Your task to perform on an android device: toggle javascript in the chrome app Image 0: 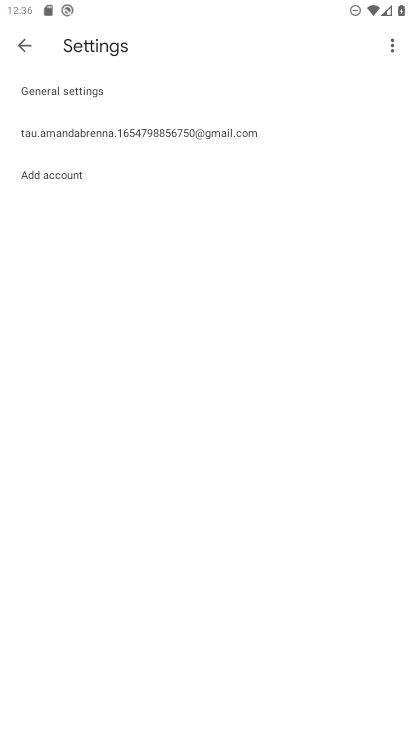
Step 0: press home button
Your task to perform on an android device: toggle javascript in the chrome app Image 1: 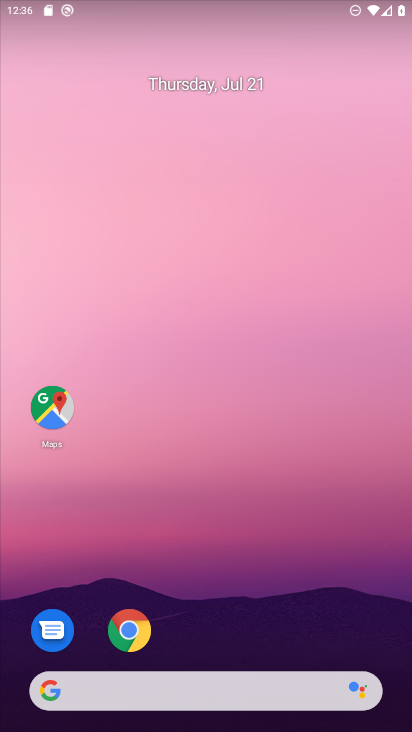
Step 1: click (120, 630)
Your task to perform on an android device: toggle javascript in the chrome app Image 2: 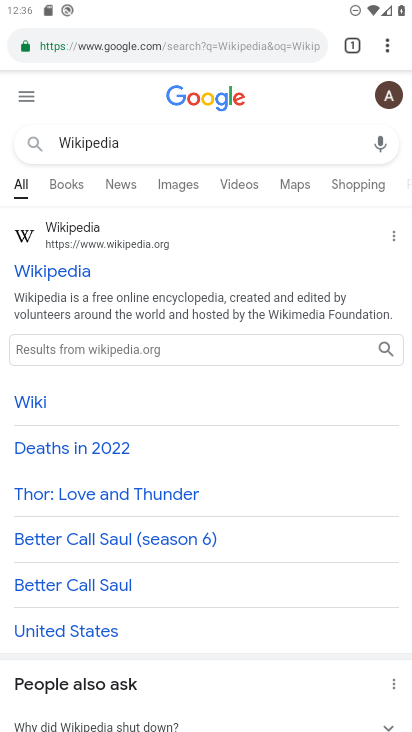
Step 2: click (382, 47)
Your task to perform on an android device: toggle javascript in the chrome app Image 3: 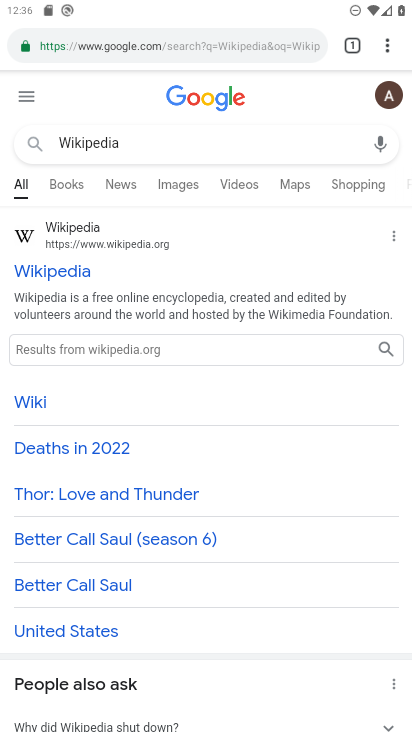
Step 3: click (386, 42)
Your task to perform on an android device: toggle javascript in the chrome app Image 4: 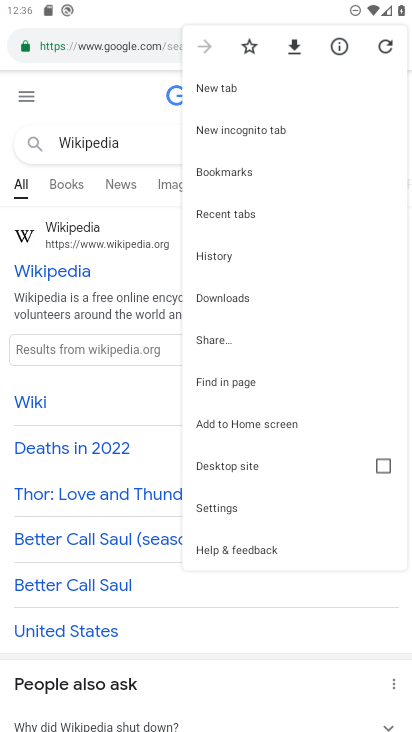
Step 4: click (202, 510)
Your task to perform on an android device: toggle javascript in the chrome app Image 5: 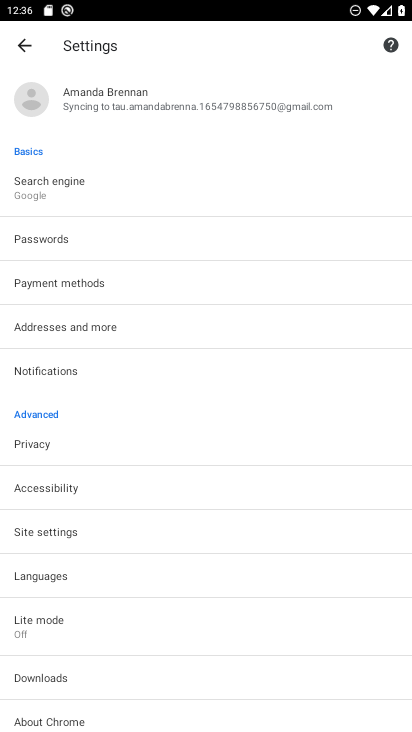
Step 5: click (53, 531)
Your task to perform on an android device: toggle javascript in the chrome app Image 6: 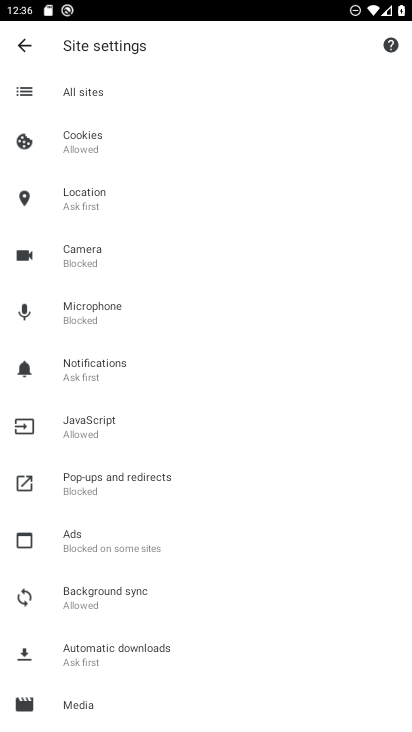
Step 6: click (98, 427)
Your task to perform on an android device: toggle javascript in the chrome app Image 7: 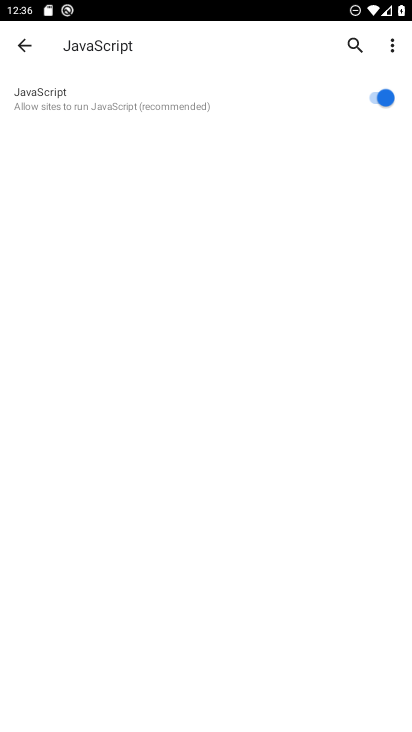
Step 7: click (374, 102)
Your task to perform on an android device: toggle javascript in the chrome app Image 8: 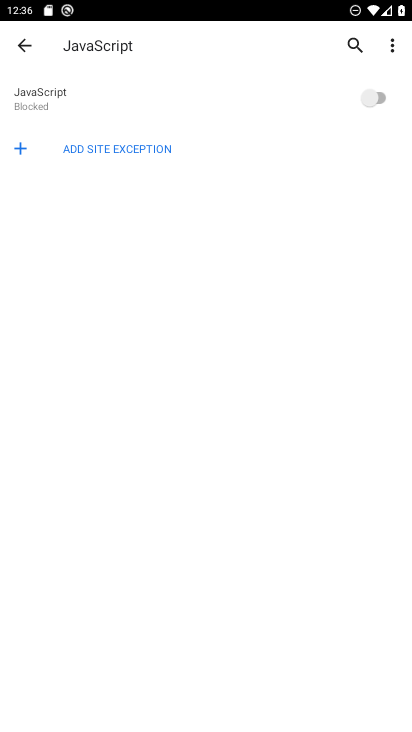
Step 8: task complete